Your task to perform on an android device: Search for sushi restaurants on Maps Image 0: 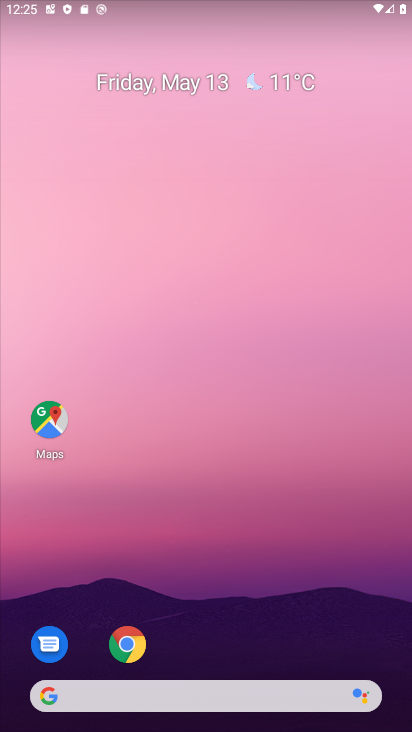
Step 0: drag from (208, 723) to (181, 43)
Your task to perform on an android device: Search for sushi restaurants on Maps Image 1: 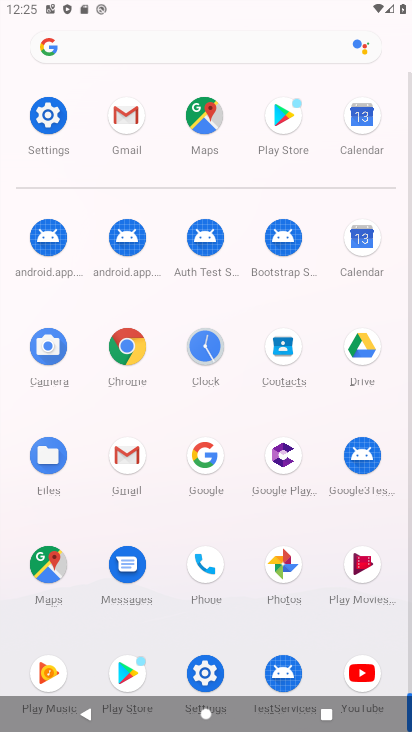
Step 1: click (203, 112)
Your task to perform on an android device: Search for sushi restaurants on Maps Image 2: 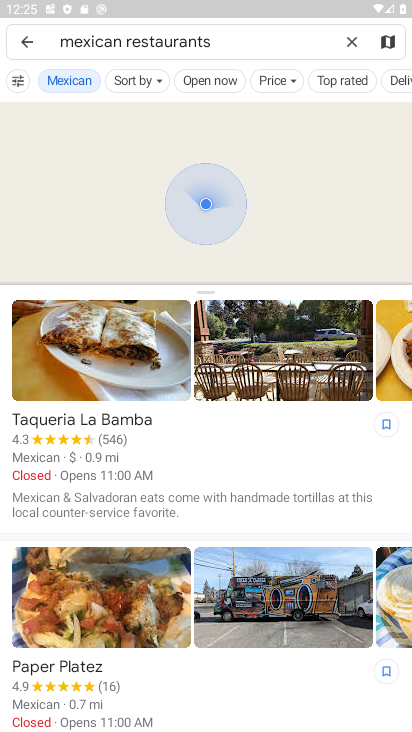
Step 2: click (346, 36)
Your task to perform on an android device: Search for sushi restaurants on Maps Image 3: 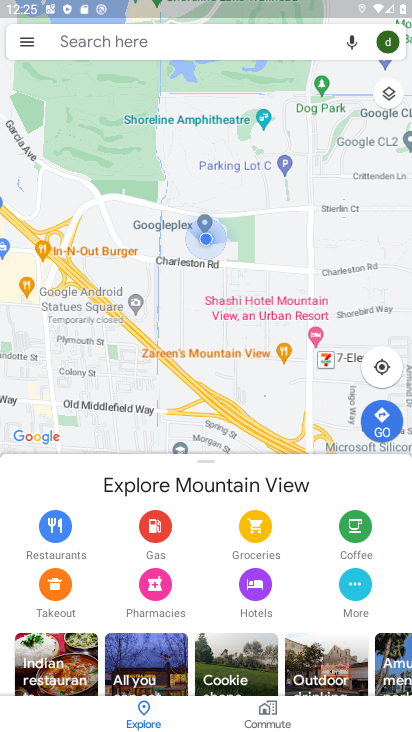
Step 3: type "sushi restaurants"
Your task to perform on an android device: Search for sushi restaurants on Maps Image 4: 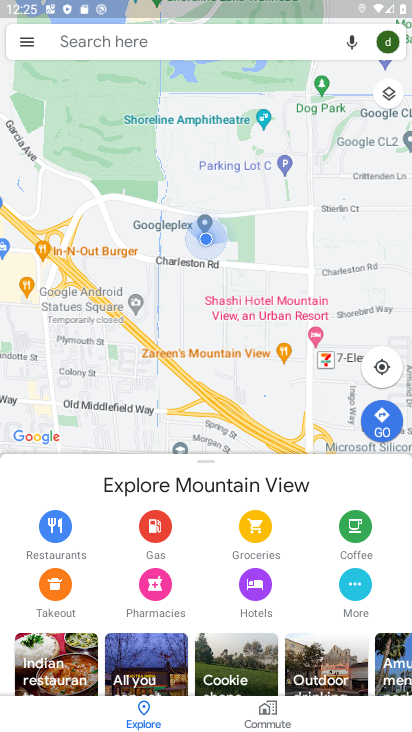
Step 4: click (97, 37)
Your task to perform on an android device: Search for sushi restaurants on Maps Image 5: 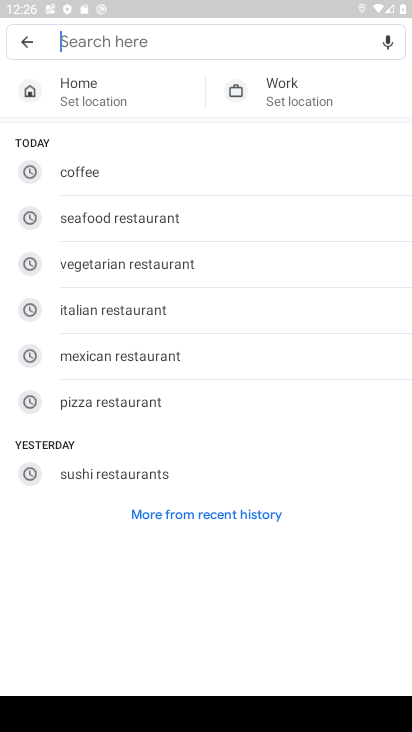
Step 5: type "sushi restaurants"
Your task to perform on an android device: Search for sushi restaurants on Maps Image 6: 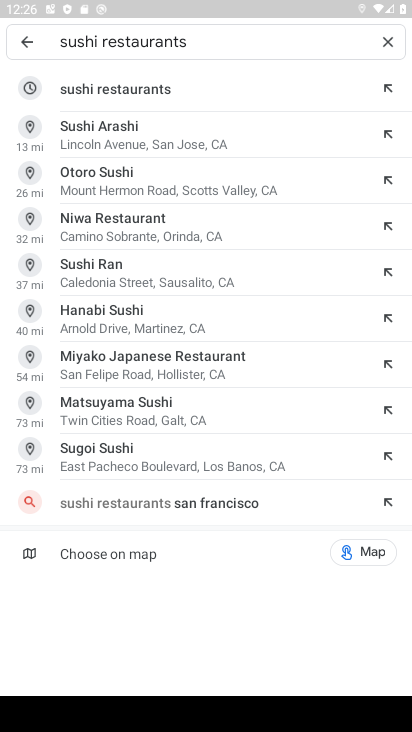
Step 6: click (117, 88)
Your task to perform on an android device: Search for sushi restaurants on Maps Image 7: 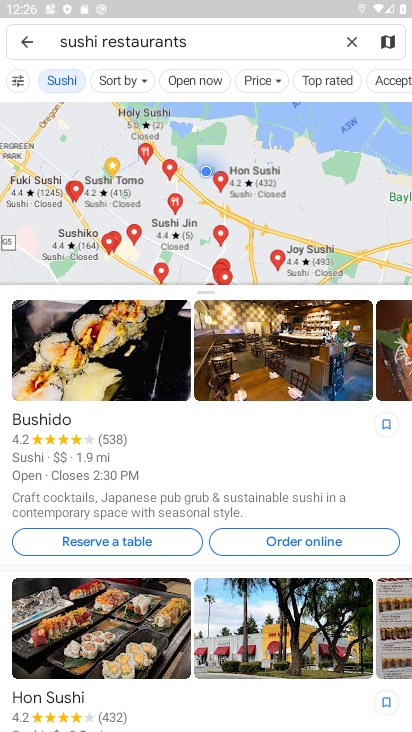
Step 7: task complete